Your task to perform on an android device: turn off sleep mode Image 0: 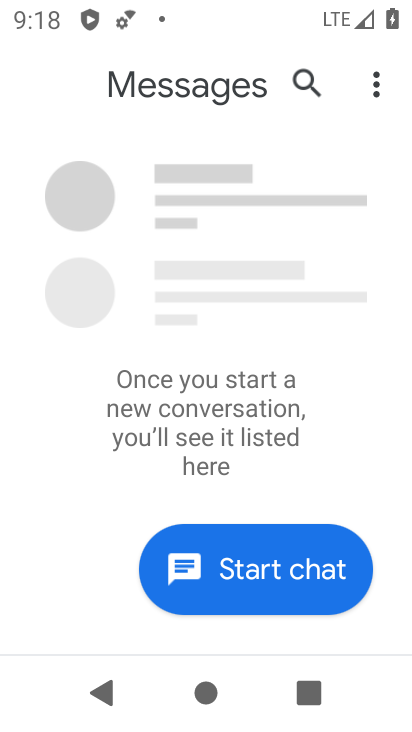
Step 0: press home button
Your task to perform on an android device: turn off sleep mode Image 1: 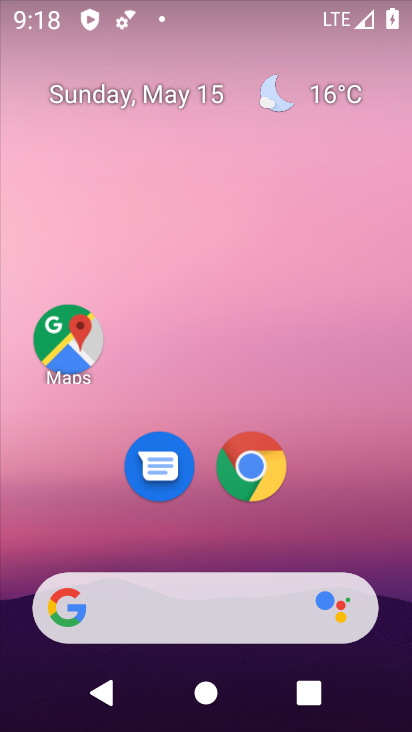
Step 1: drag from (76, 550) to (193, 61)
Your task to perform on an android device: turn off sleep mode Image 2: 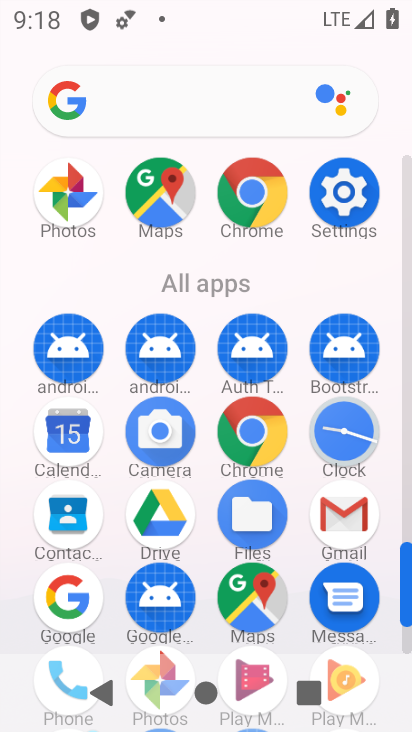
Step 2: drag from (129, 535) to (206, 335)
Your task to perform on an android device: turn off sleep mode Image 3: 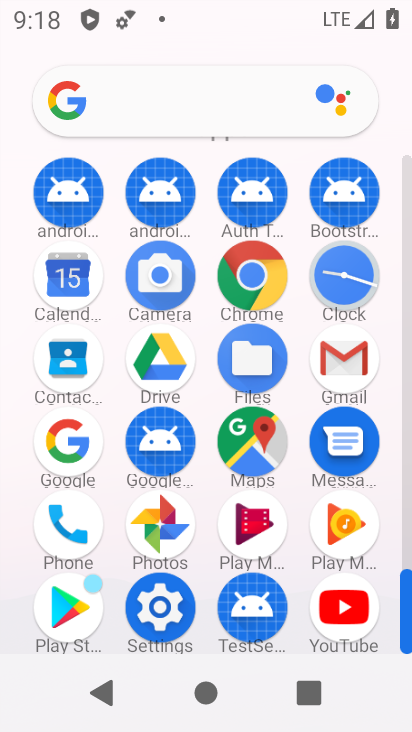
Step 3: click (165, 625)
Your task to perform on an android device: turn off sleep mode Image 4: 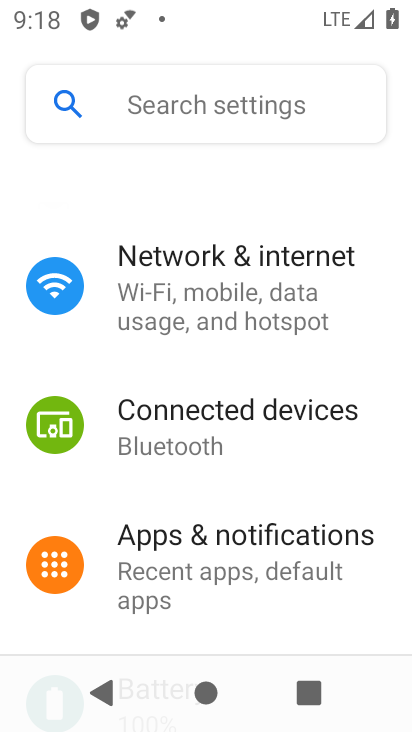
Step 4: drag from (201, 609) to (331, 225)
Your task to perform on an android device: turn off sleep mode Image 5: 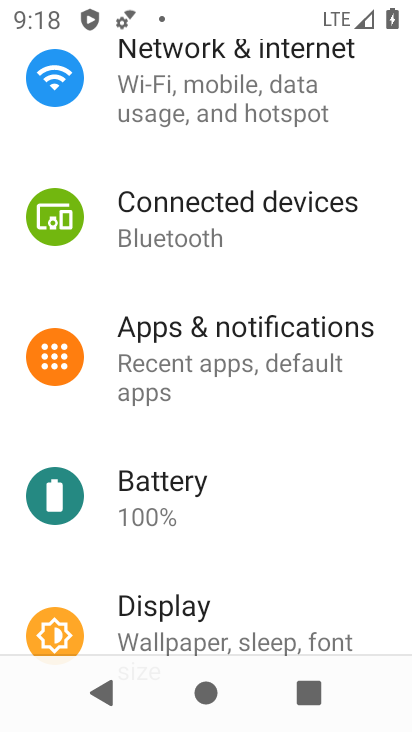
Step 5: click (190, 603)
Your task to perform on an android device: turn off sleep mode Image 6: 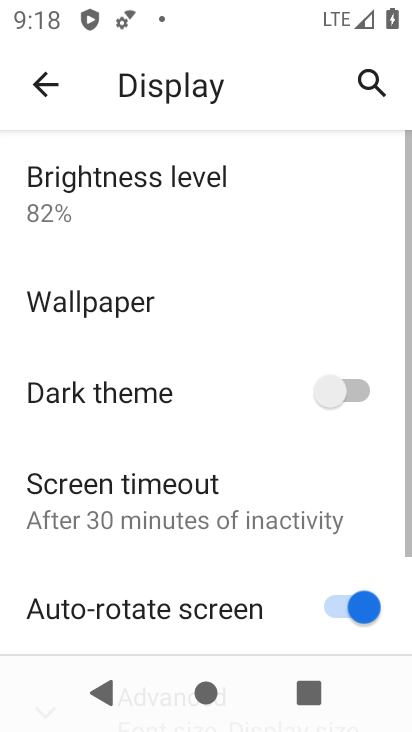
Step 6: drag from (239, 610) to (304, 276)
Your task to perform on an android device: turn off sleep mode Image 7: 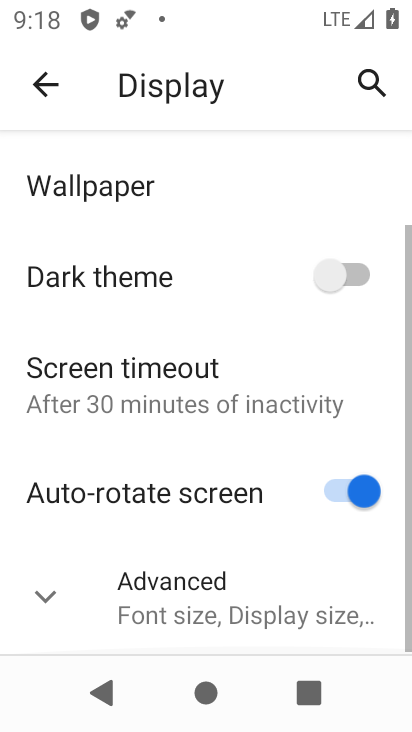
Step 7: click (213, 599)
Your task to perform on an android device: turn off sleep mode Image 8: 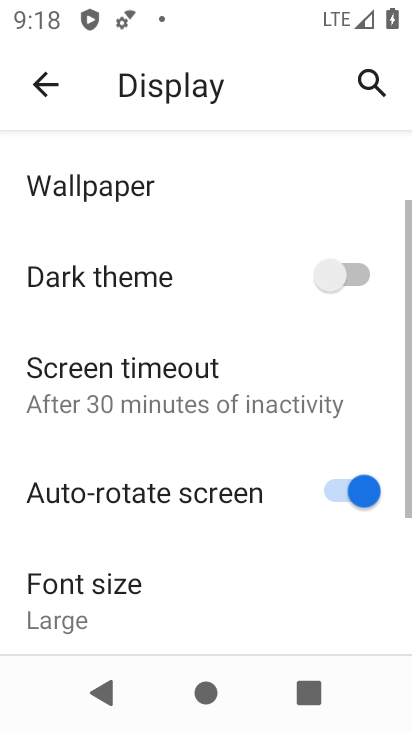
Step 8: task complete